Your task to perform on an android device: turn on airplane mode Image 0: 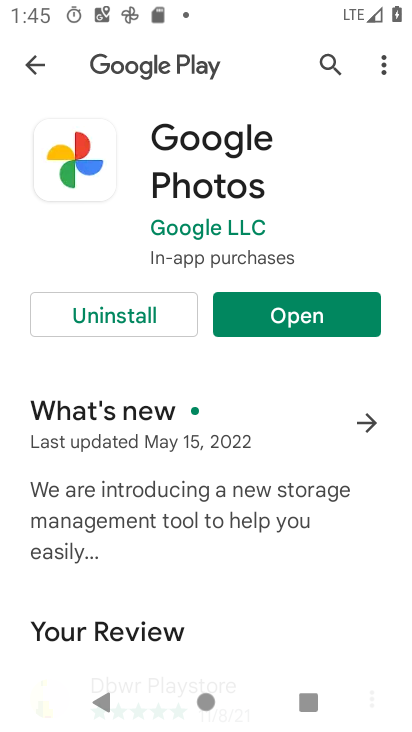
Step 0: press home button
Your task to perform on an android device: turn on airplane mode Image 1: 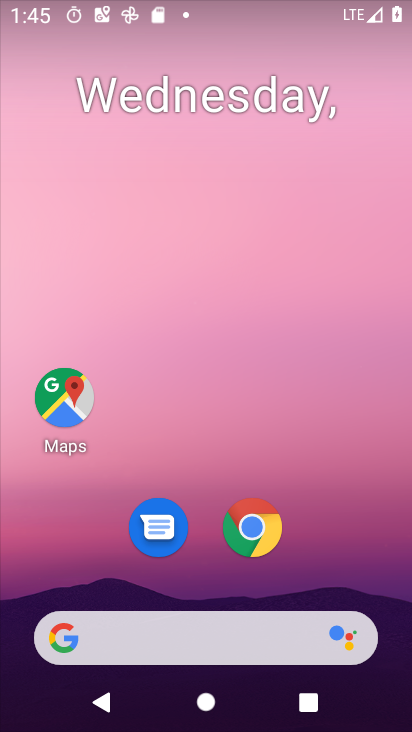
Step 1: drag from (357, 592) to (352, 1)
Your task to perform on an android device: turn on airplane mode Image 2: 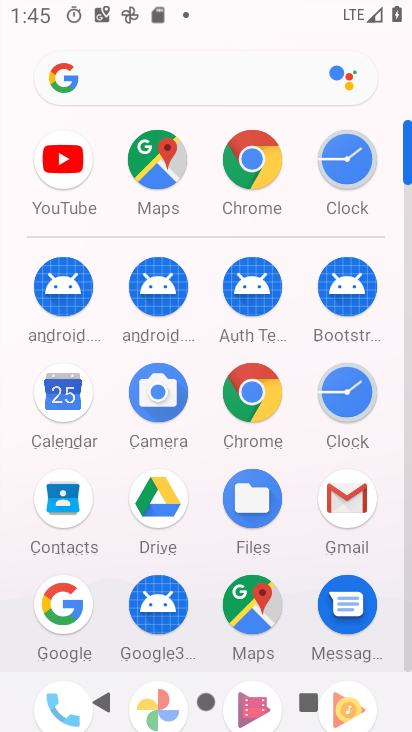
Step 2: drag from (308, 570) to (324, 185)
Your task to perform on an android device: turn on airplane mode Image 3: 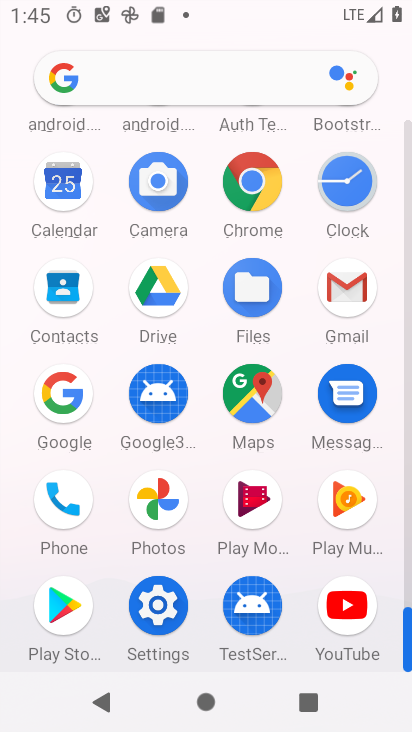
Step 3: click (170, 618)
Your task to perform on an android device: turn on airplane mode Image 4: 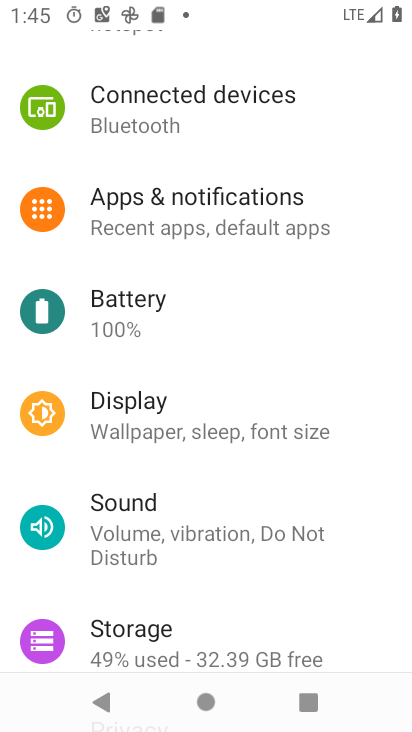
Step 4: drag from (282, 160) to (225, 649)
Your task to perform on an android device: turn on airplane mode Image 5: 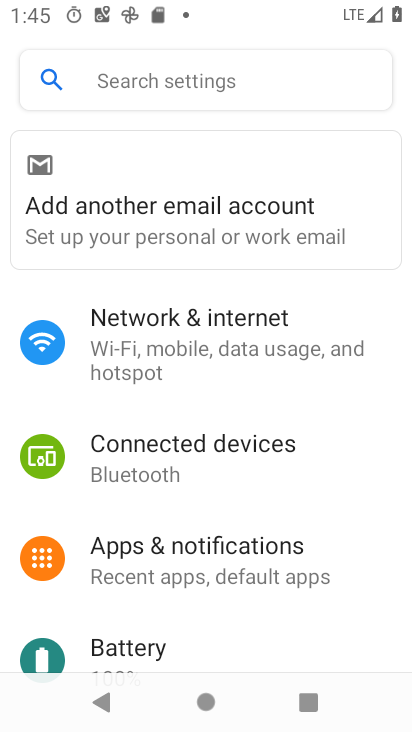
Step 5: click (207, 360)
Your task to perform on an android device: turn on airplane mode Image 6: 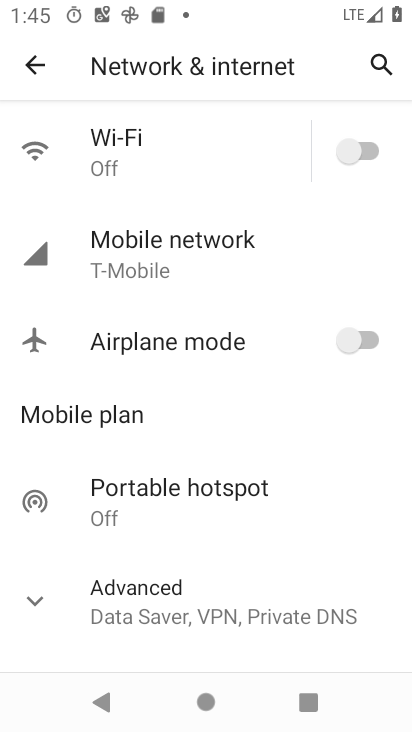
Step 6: click (368, 345)
Your task to perform on an android device: turn on airplane mode Image 7: 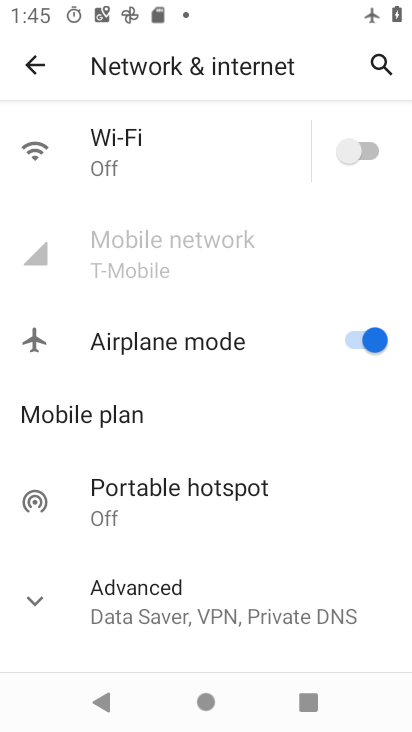
Step 7: task complete